Your task to perform on an android device: visit the assistant section in the google photos Image 0: 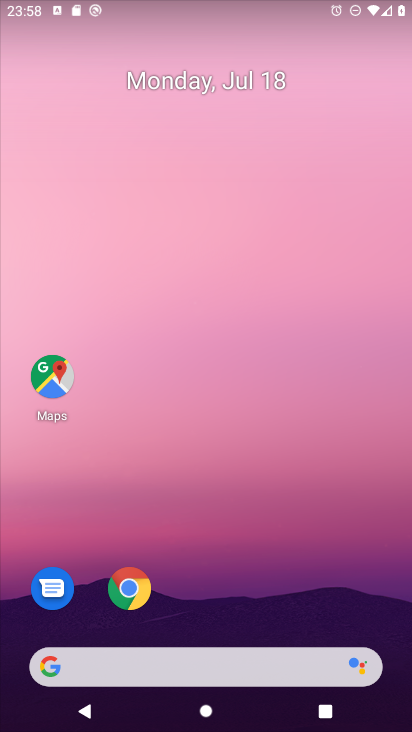
Step 0: drag from (395, 641) to (346, 67)
Your task to perform on an android device: visit the assistant section in the google photos Image 1: 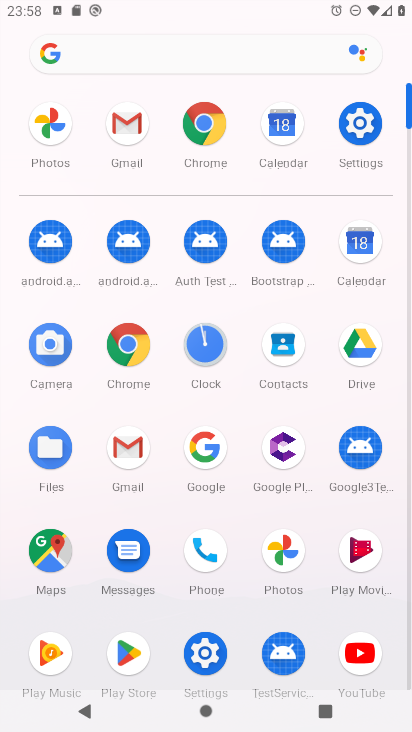
Step 1: click (284, 546)
Your task to perform on an android device: visit the assistant section in the google photos Image 2: 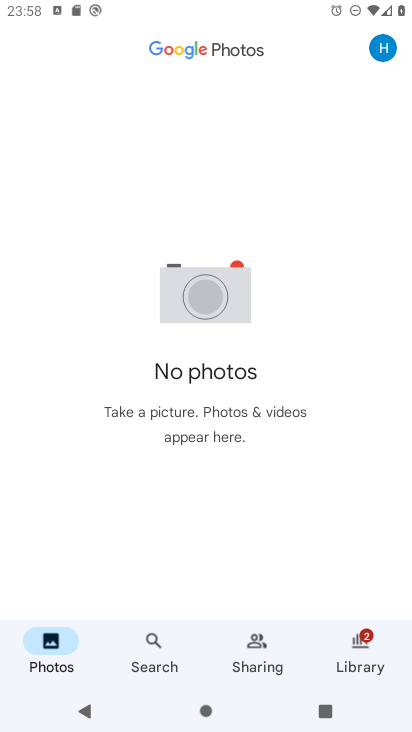
Step 2: click (353, 653)
Your task to perform on an android device: visit the assistant section in the google photos Image 3: 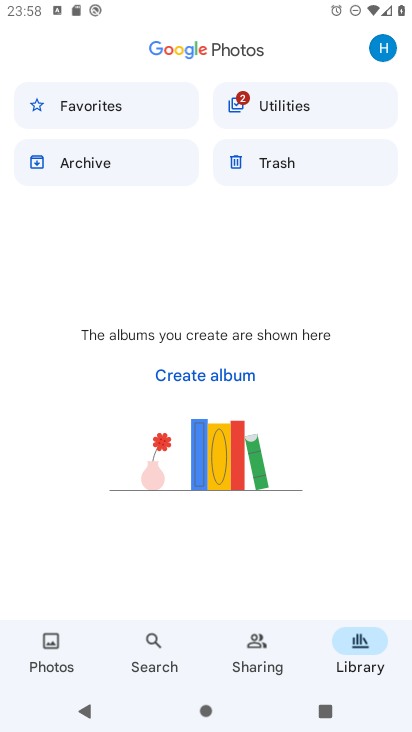
Step 3: task complete